Your task to perform on an android device: Go to Reddit.com Image 0: 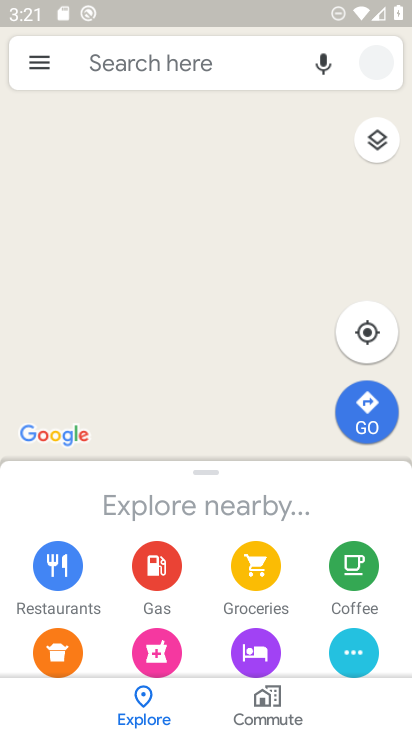
Step 0: press home button
Your task to perform on an android device: Go to Reddit.com Image 1: 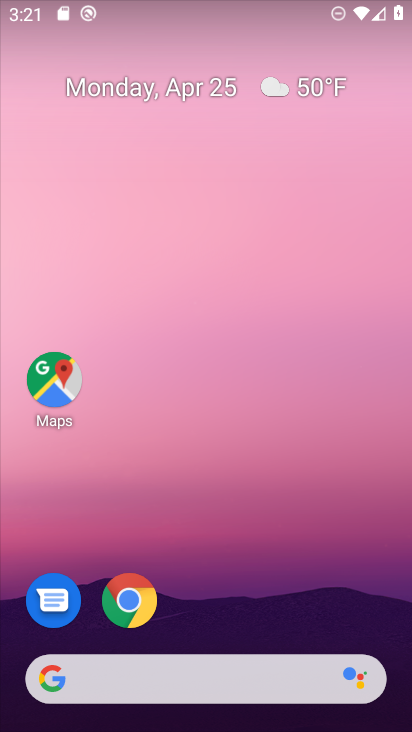
Step 1: click (147, 599)
Your task to perform on an android device: Go to Reddit.com Image 2: 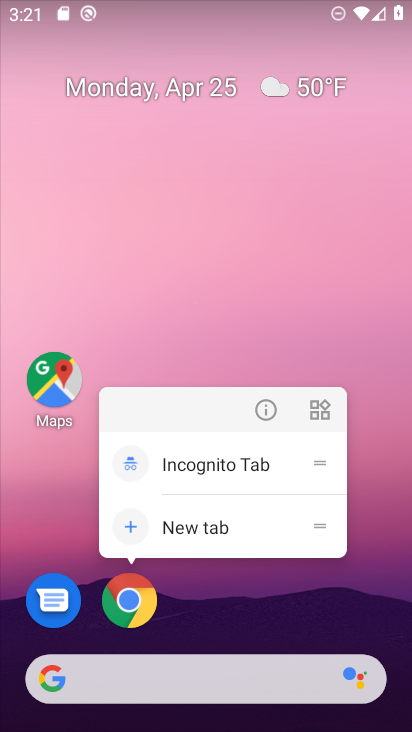
Step 2: click (135, 599)
Your task to perform on an android device: Go to Reddit.com Image 3: 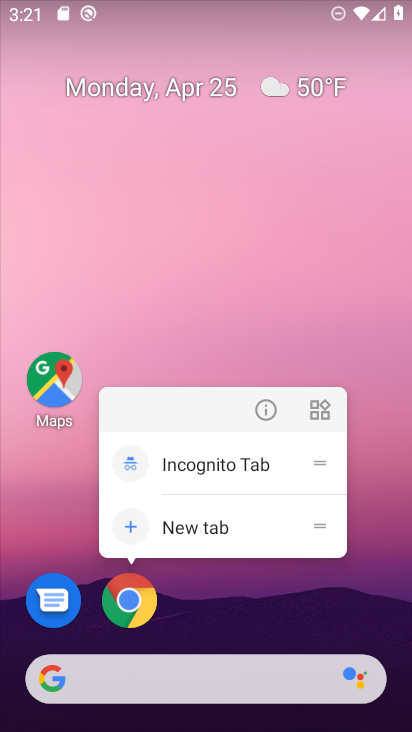
Step 3: click (127, 600)
Your task to perform on an android device: Go to Reddit.com Image 4: 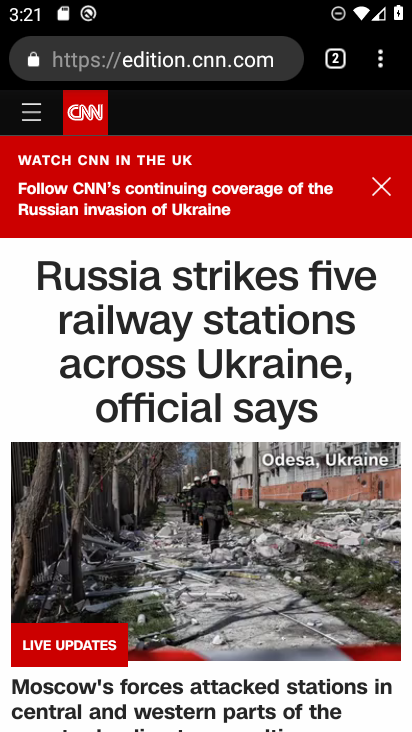
Step 4: click (262, 53)
Your task to perform on an android device: Go to Reddit.com Image 5: 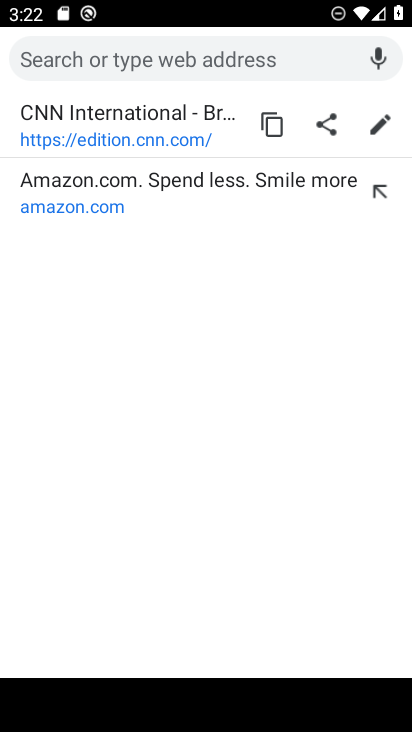
Step 5: type "reddit"
Your task to perform on an android device: Go to Reddit.com Image 6: 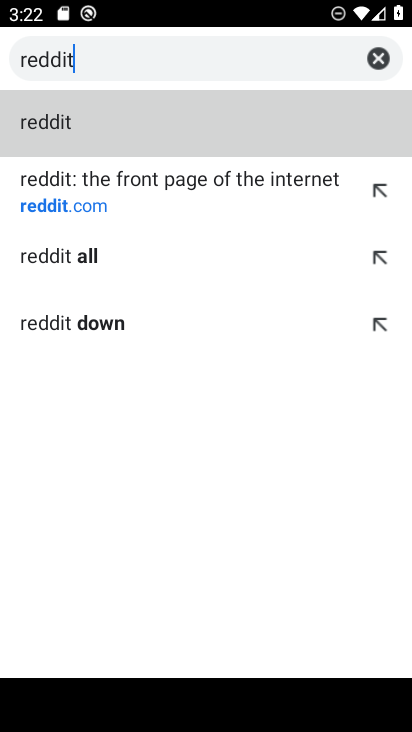
Step 6: click (163, 126)
Your task to perform on an android device: Go to Reddit.com Image 7: 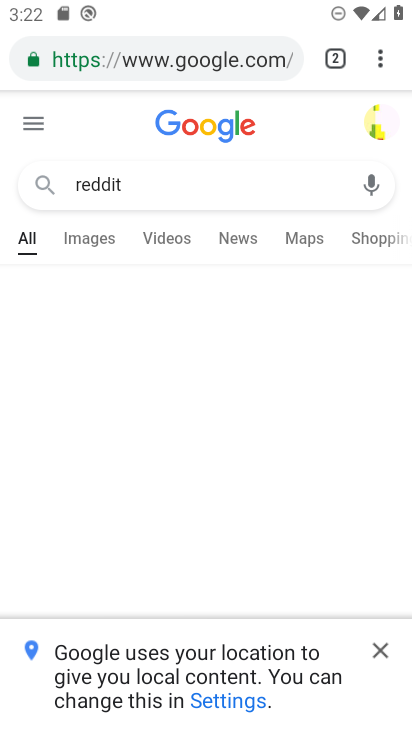
Step 7: click (379, 648)
Your task to perform on an android device: Go to Reddit.com Image 8: 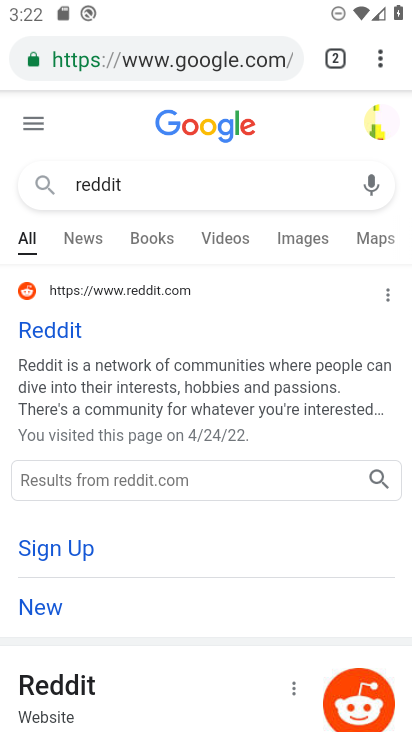
Step 8: click (58, 329)
Your task to perform on an android device: Go to Reddit.com Image 9: 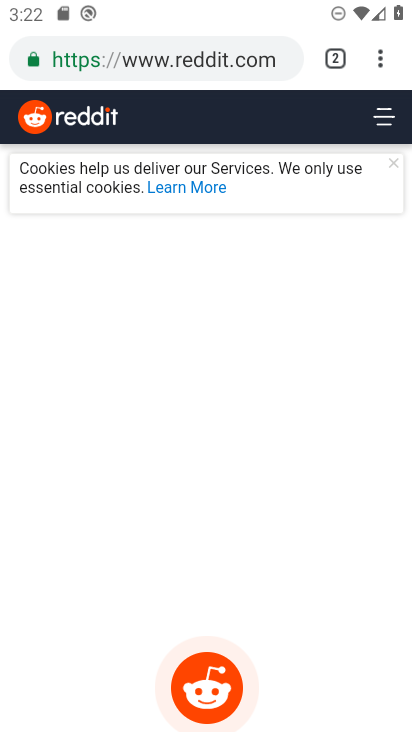
Step 9: task complete